Your task to perform on an android device: check data usage Image 0: 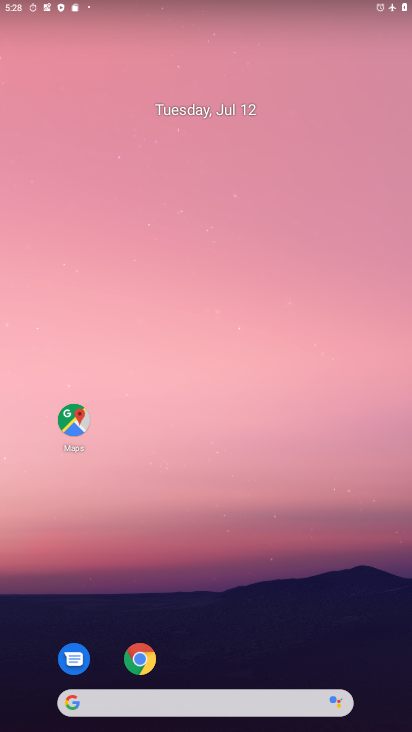
Step 0: drag from (221, 597) to (292, 148)
Your task to perform on an android device: check data usage Image 1: 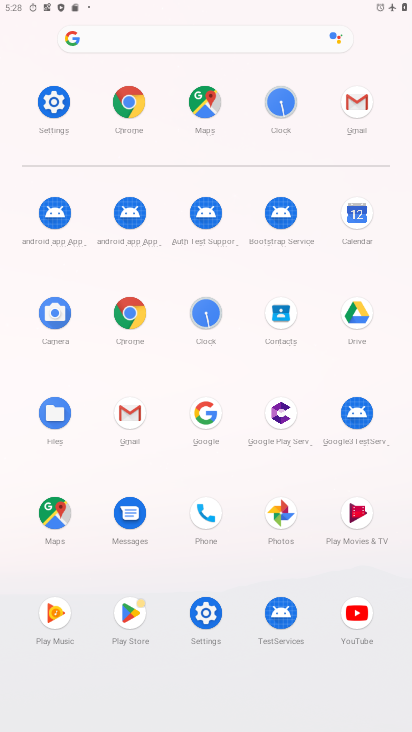
Step 1: click (53, 98)
Your task to perform on an android device: check data usage Image 2: 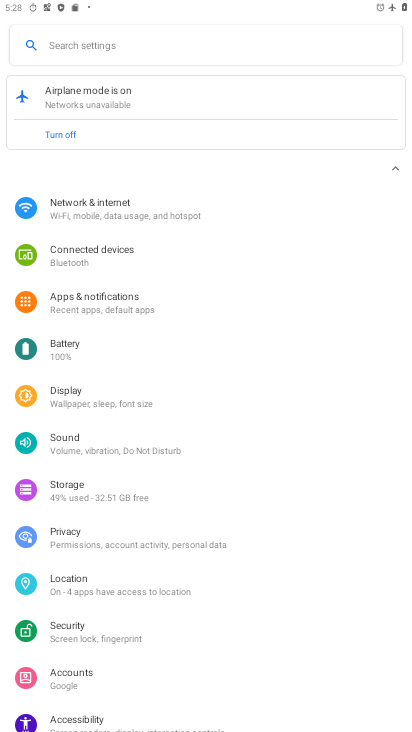
Step 2: click (62, 207)
Your task to perform on an android device: check data usage Image 3: 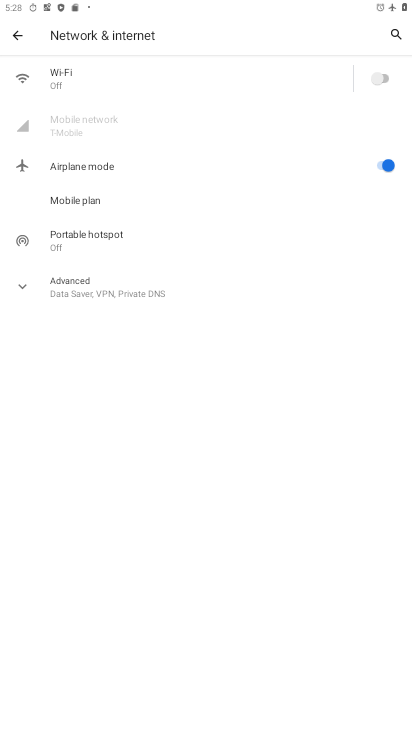
Step 3: drag from (186, 109) to (225, 78)
Your task to perform on an android device: check data usage Image 4: 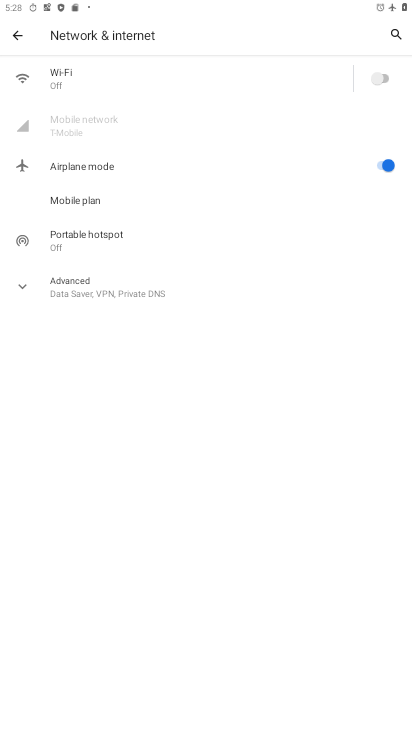
Step 4: click (225, 78)
Your task to perform on an android device: check data usage Image 5: 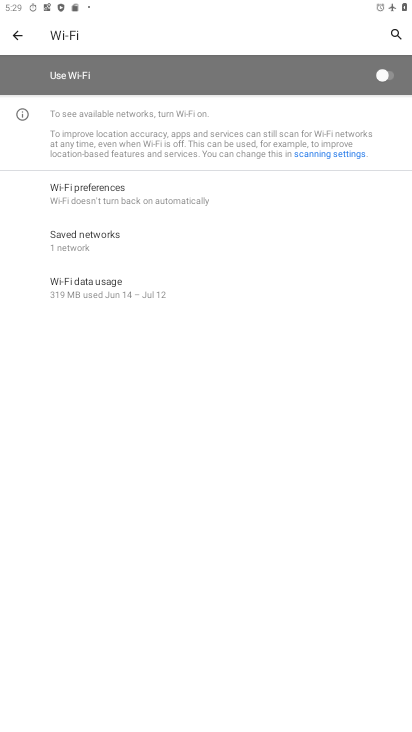
Step 5: task complete